Your task to perform on an android device: Go to calendar. Show me events next week Image 0: 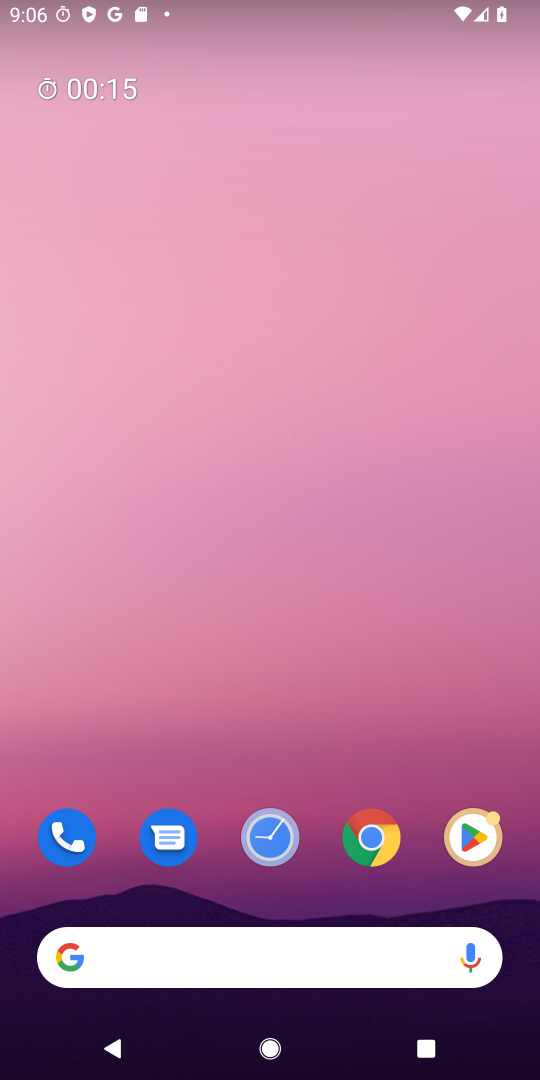
Step 0: drag from (230, 899) to (245, 241)
Your task to perform on an android device: Go to calendar. Show me events next week Image 1: 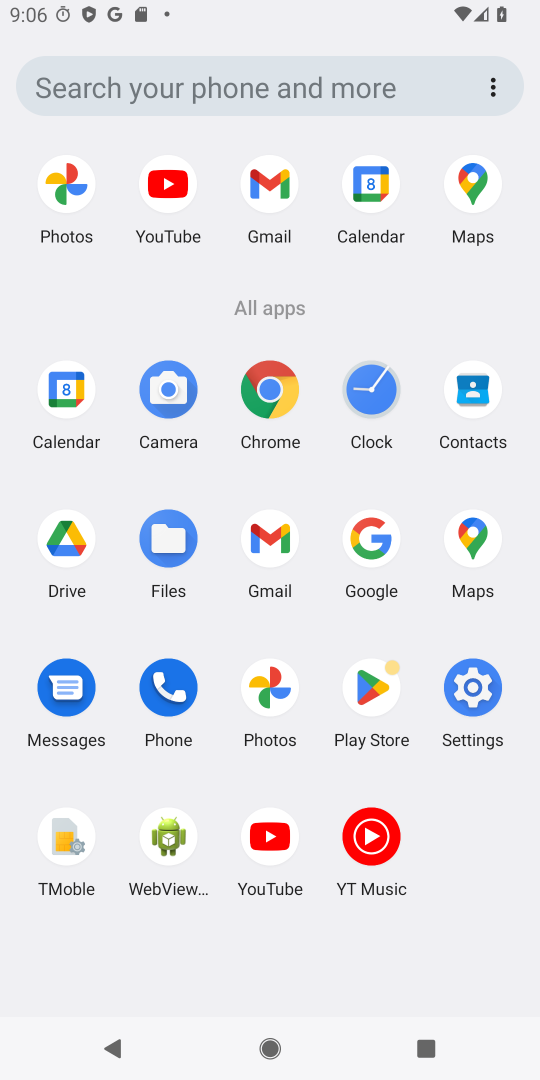
Step 1: click (64, 419)
Your task to perform on an android device: Go to calendar. Show me events next week Image 2: 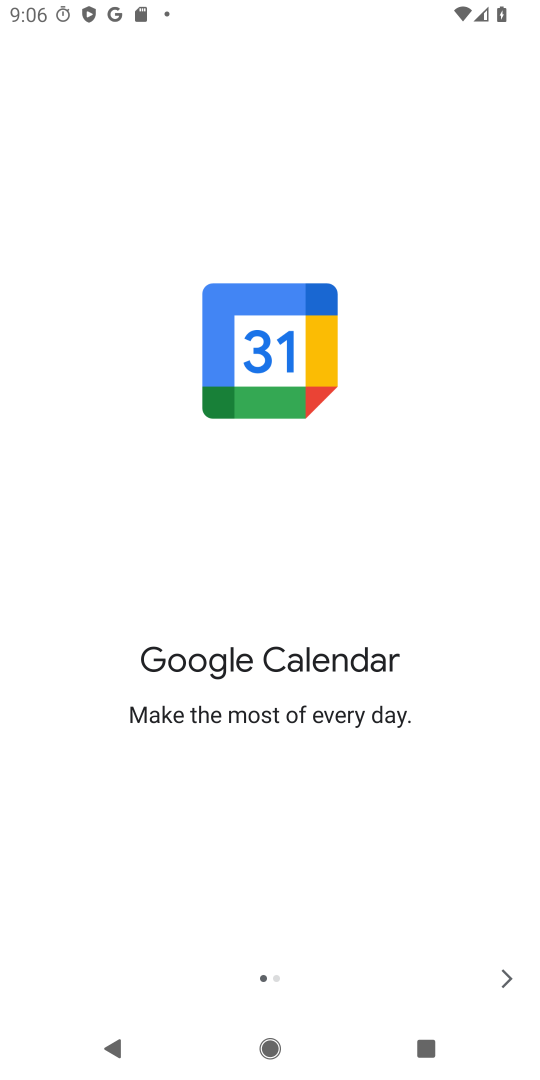
Step 2: click (504, 974)
Your task to perform on an android device: Go to calendar. Show me events next week Image 3: 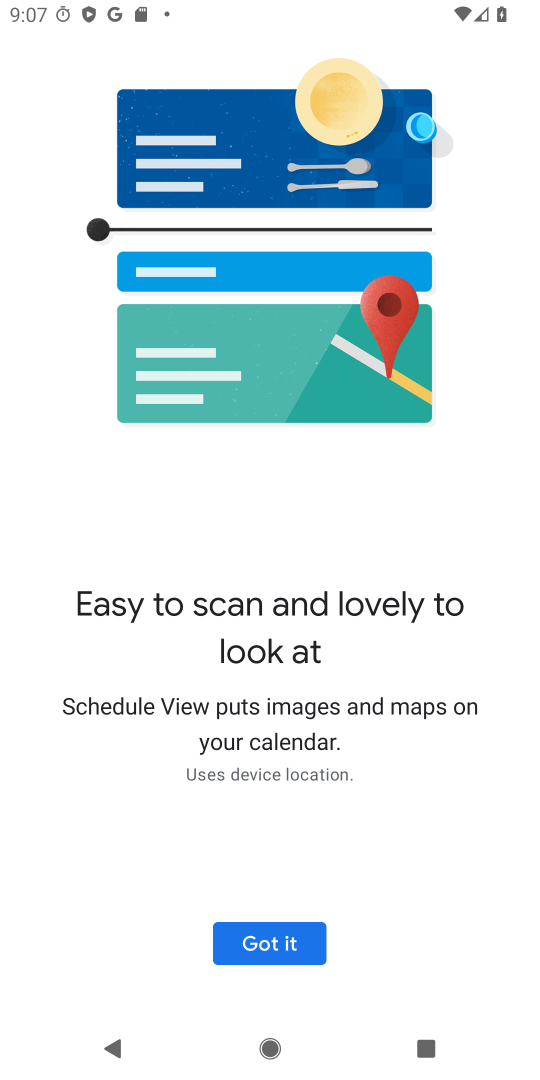
Step 3: click (284, 942)
Your task to perform on an android device: Go to calendar. Show me events next week Image 4: 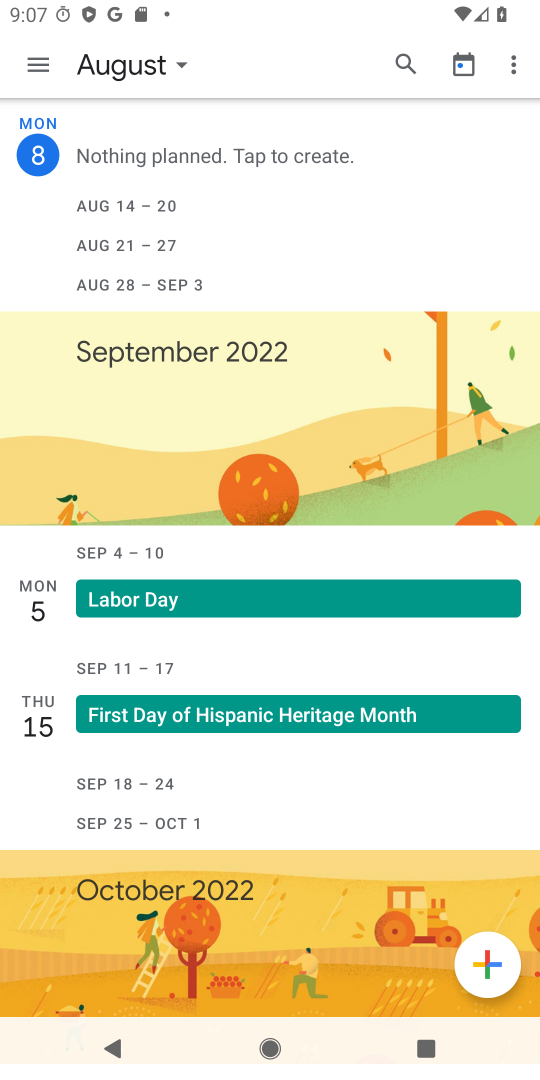
Step 4: click (34, 64)
Your task to perform on an android device: Go to calendar. Show me events next week Image 5: 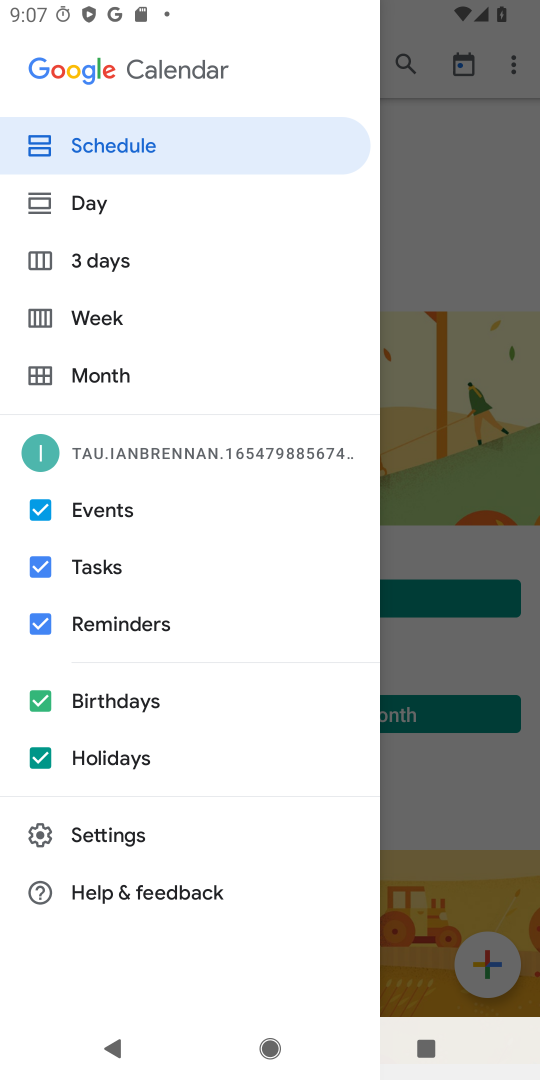
Step 5: click (70, 761)
Your task to perform on an android device: Go to calendar. Show me events next week Image 6: 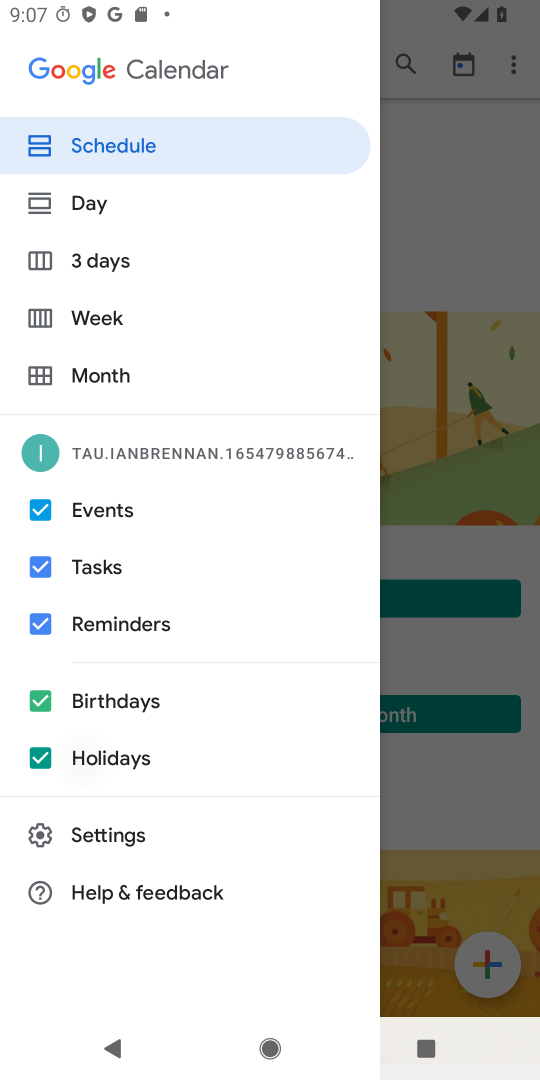
Step 6: click (83, 682)
Your task to perform on an android device: Go to calendar. Show me events next week Image 7: 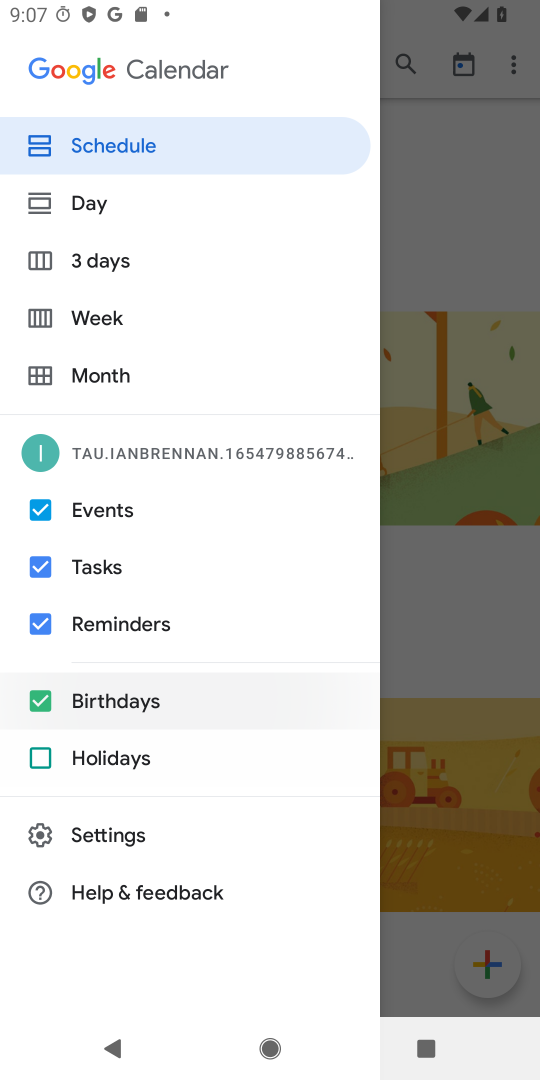
Step 7: click (79, 601)
Your task to perform on an android device: Go to calendar. Show me events next week Image 8: 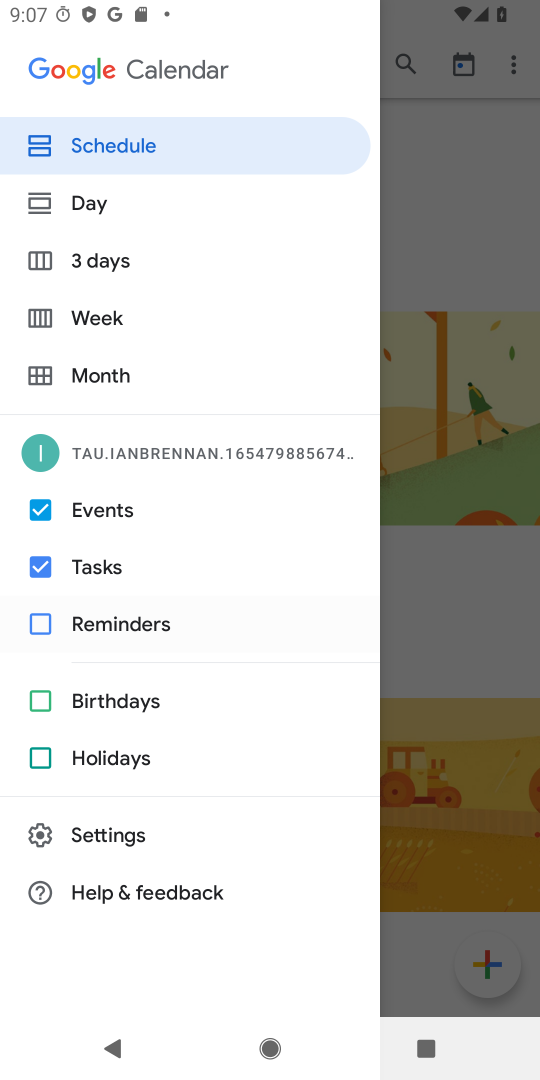
Step 8: click (95, 583)
Your task to perform on an android device: Go to calendar. Show me events next week Image 9: 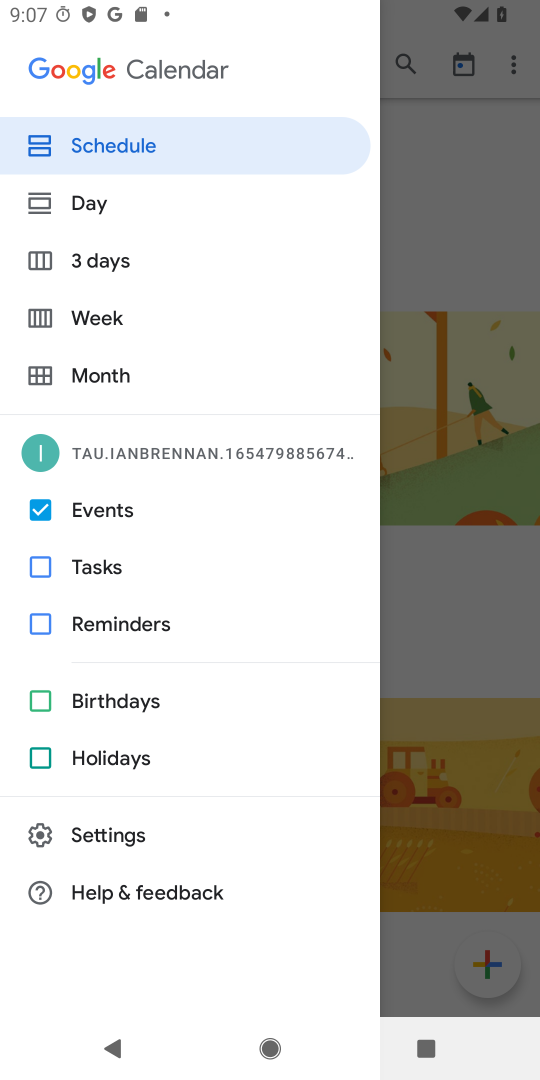
Step 9: click (100, 572)
Your task to perform on an android device: Go to calendar. Show me events next week Image 10: 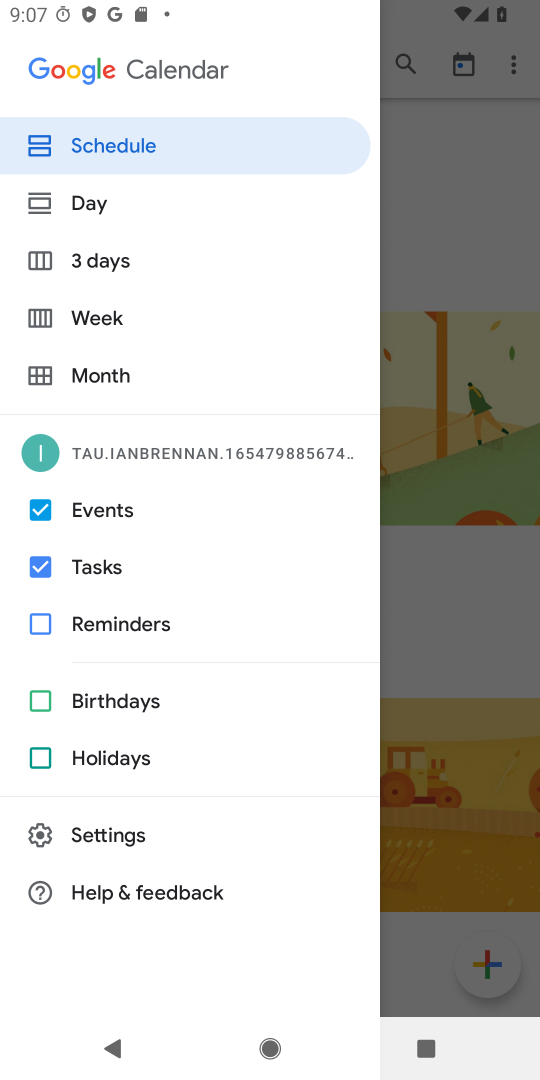
Step 10: click (92, 558)
Your task to perform on an android device: Go to calendar. Show me events next week Image 11: 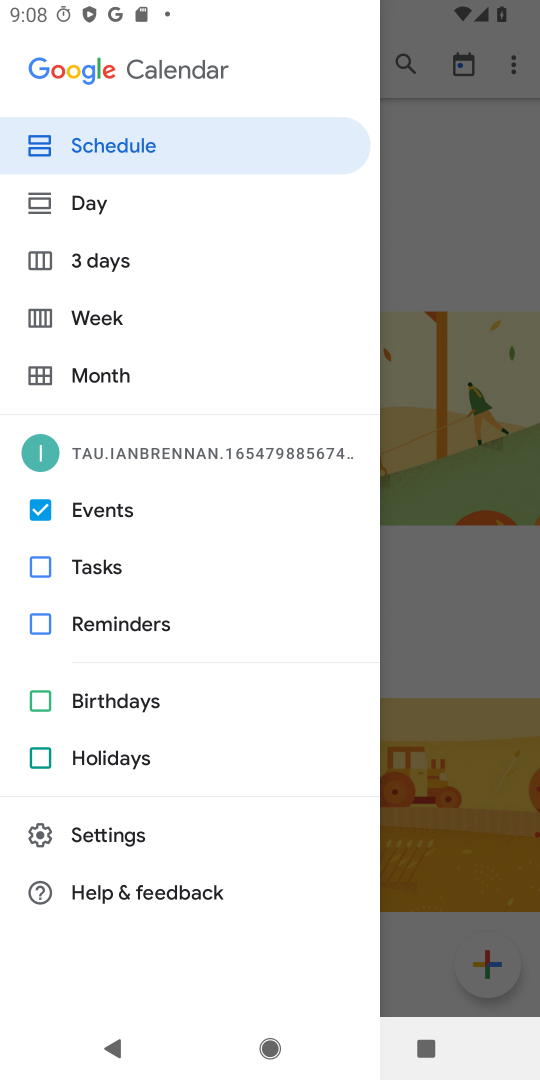
Step 11: click (81, 571)
Your task to perform on an android device: Go to calendar. Show me events next week Image 12: 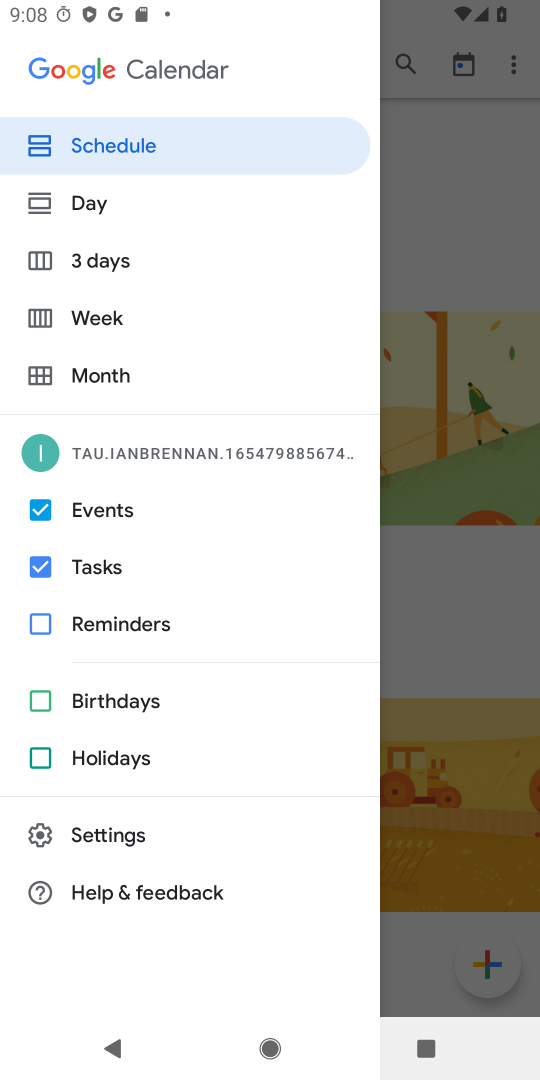
Step 12: click (60, 569)
Your task to perform on an android device: Go to calendar. Show me events next week Image 13: 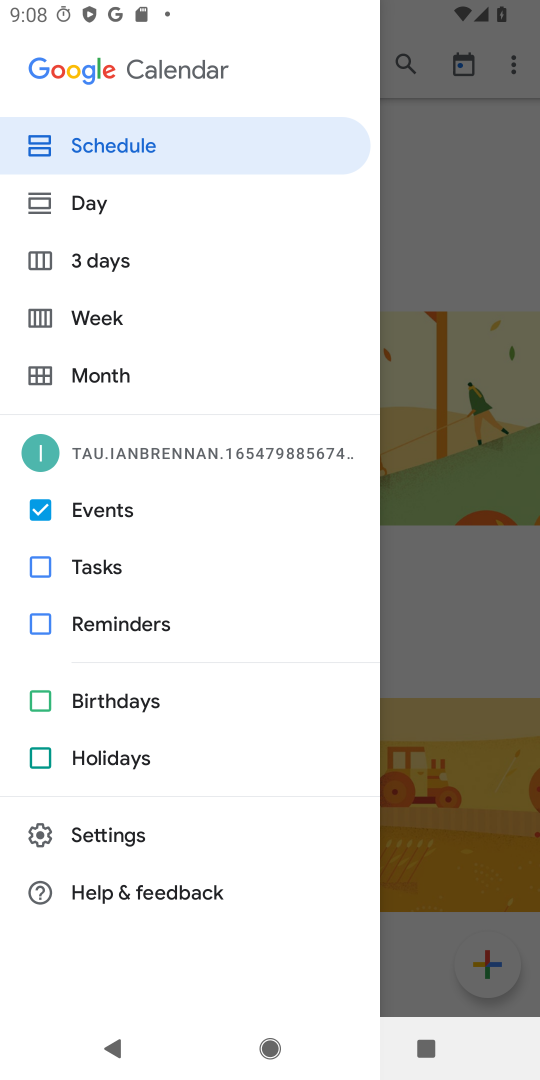
Step 13: click (92, 324)
Your task to perform on an android device: Go to calendar. Show me events next week Image 14: 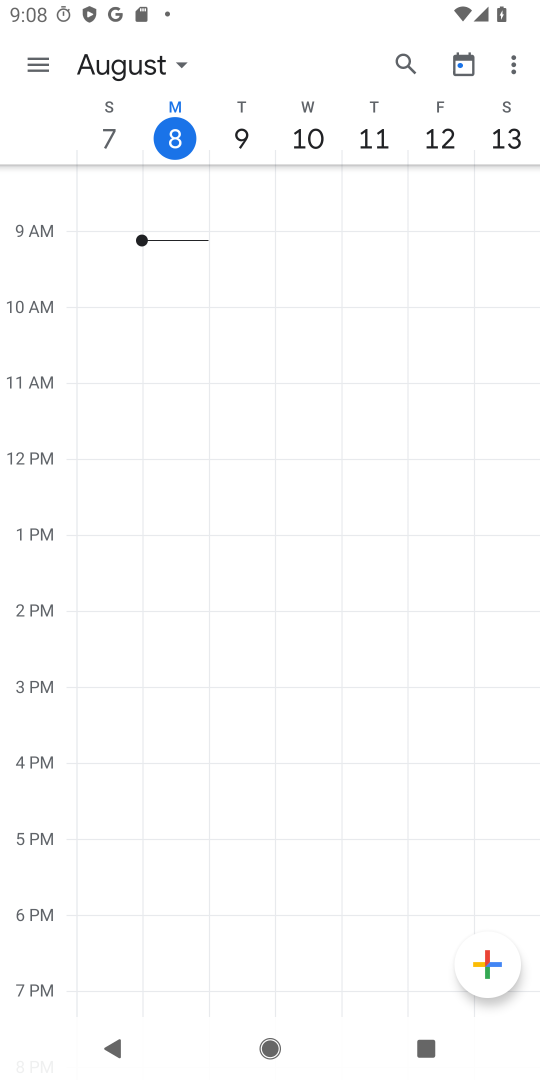
Step 14: task complete